Your task to perform on an android device: turn off javascript in the chrome app Image 0: 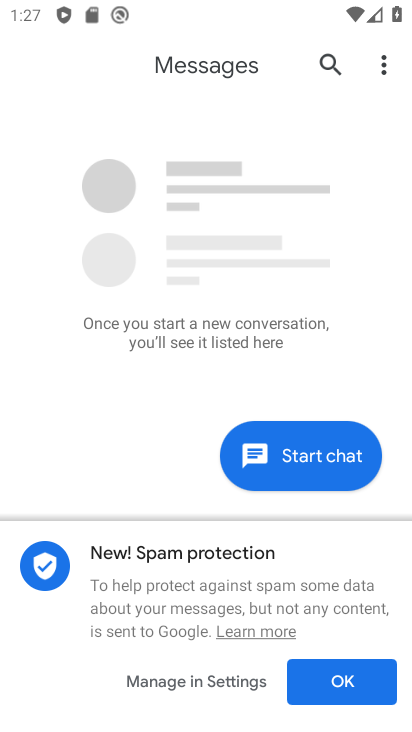
Step 0: press home button
Your task to perform on an android device: turn off javascript in the chrome app Image 1: 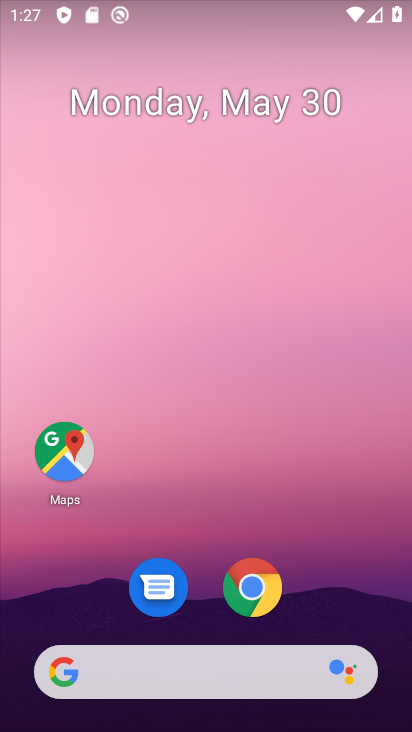
Step 1: click (263, 595)
Your task to perform on an android device: turn off javascript in the chrome app Image 2: 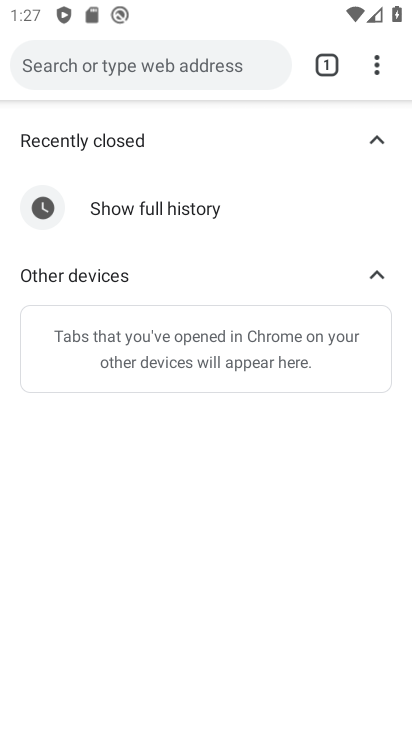
Step 2: click (381, 74)
Your task to perform on an android device: turn off javascript in the chrome app Image 3: 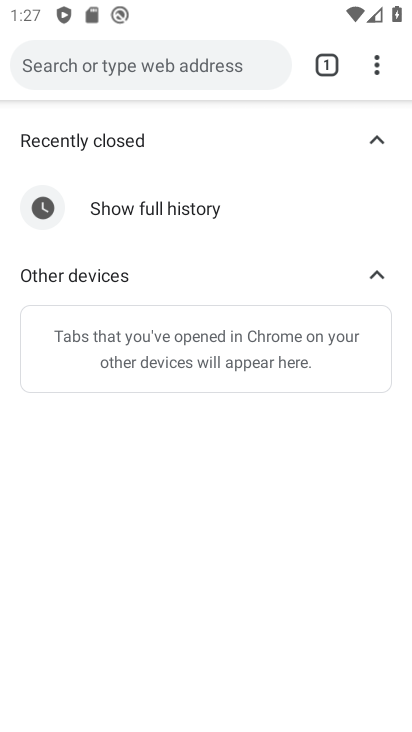
Step 3: click (376, 66)
Your task to perform on an android device: turn off javascript in the chrome app Image 4: 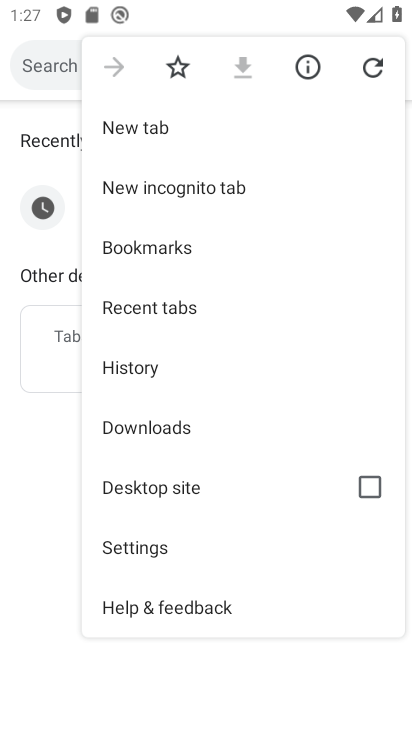
Step 4: click (145, 558)
Your task to perform on an android device: turn off javascript in the chrome app Image 5: 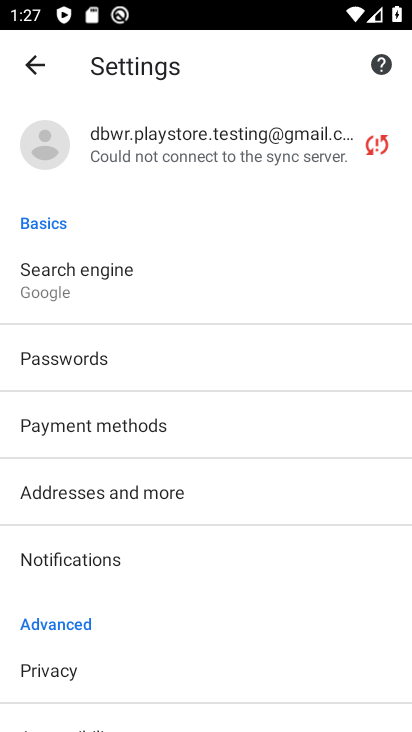
Step 5: drag from (289, 688) to (290, 270)
Your task to perform on an android device: turn off javascript in the chrome app Image 6: 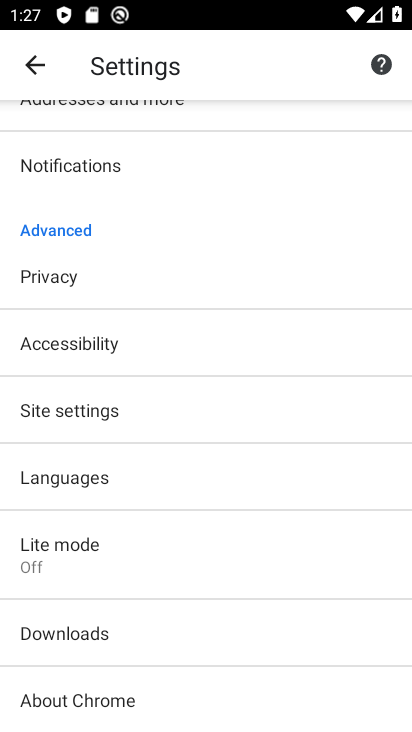
Step 6: click (109, 407)
Your task to perform on an android device: turn off javascript in the chrome app Image 7: 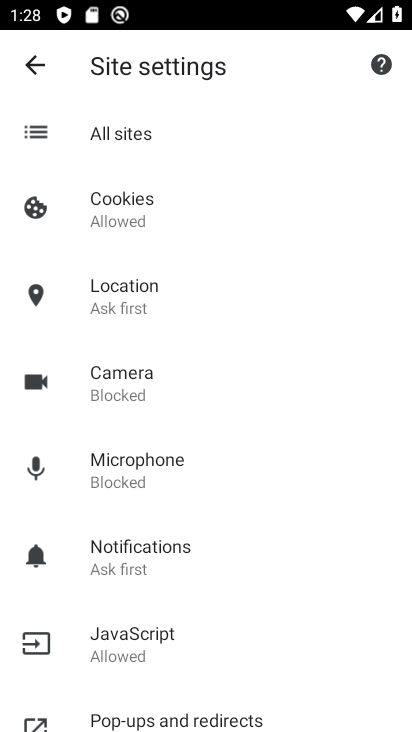
Step 7: click (176, 650)
Your task to perform on an android device: turn off javascript in the chrome app Image 8: 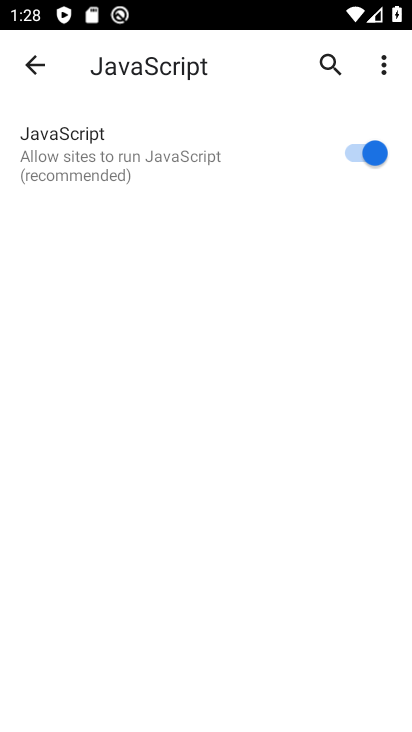
Step 8: click (340, 144)
Your task to perform on an android device: turn off javascript in the chrome app Image 9: 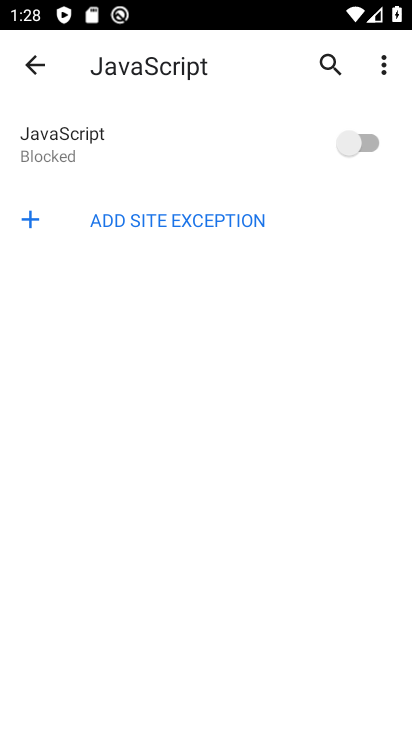
Step 9: task complete